Your task to perform on an android device: open app "Flipkart Online Shopping App" (install if not already installed) and enter user name: "fostered@gmail.com" and password: "negotiated" Image 0: 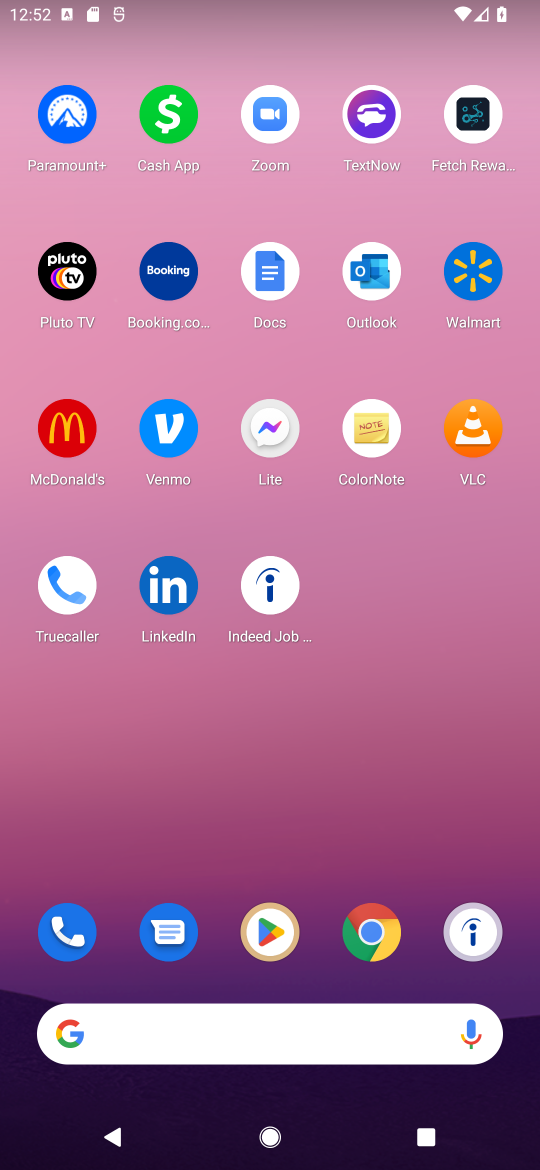
Step 0: click (258, 924)
Your task to perform on an android device: open app "Flipkart Online Shopping App" (install if not already installed) and enter user name: "fostered@gmail.com" and password: "negotiated" Image 1: 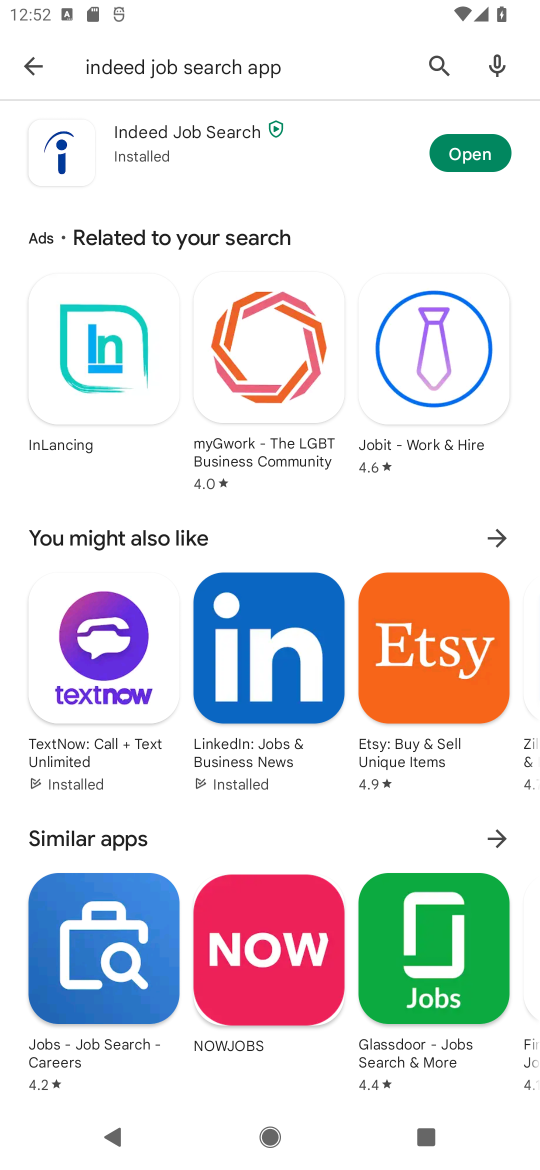
Step 1: click (442, 63)
Your task to perform on an android device: open app "Flipkart Online Shopping App" (install if not already installed) and enter user name: "fostered@gmail.com" and password: "negotiated" Image 2: 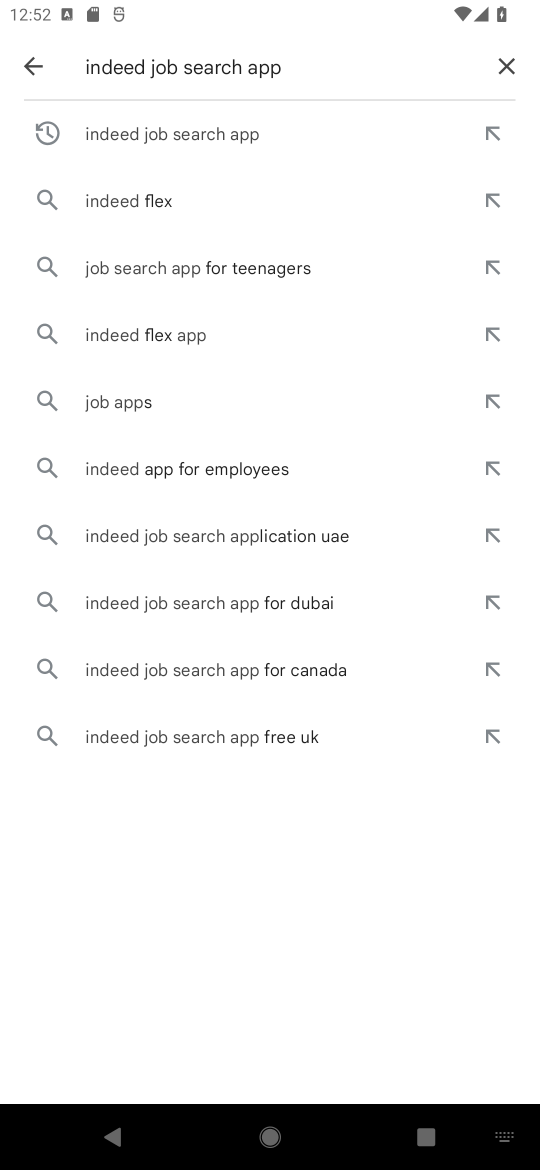
Step 2: click (496, 58)
Your task to perform on an android device: open app "Flipkart Online Shopping App" (install if not already installed) and enter user name: "fostered@gmail.com" and password: "negotiated" Image 3: 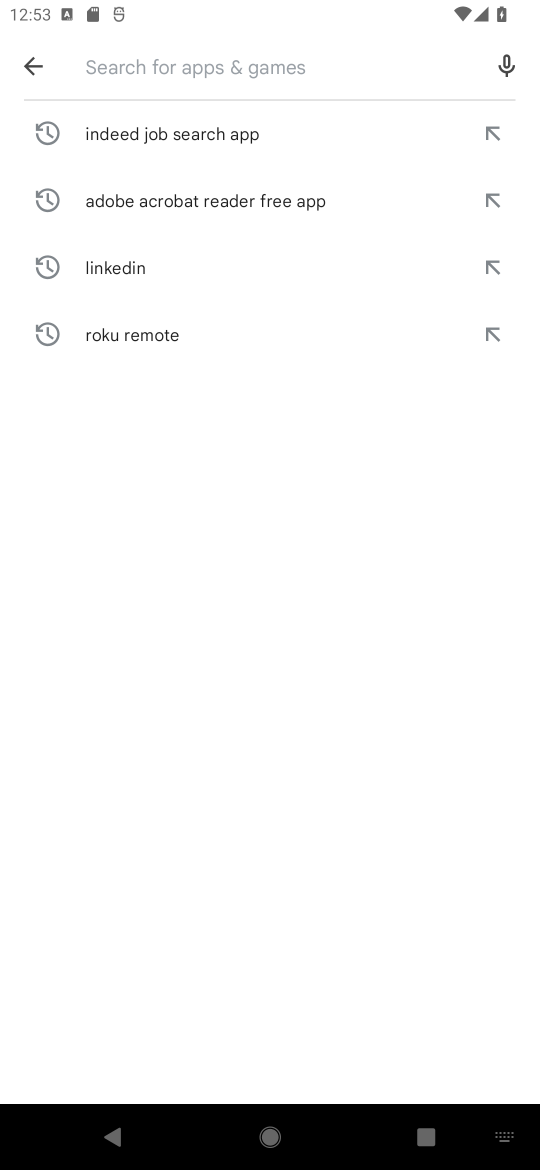
Step 3: click (242, 62)
Your task to perform on an android device: open app "Flipkart Online Shopping App" (install if not already installed) and enter user name: "fostered@gmail.com" and password: "negotiated" Image 4: 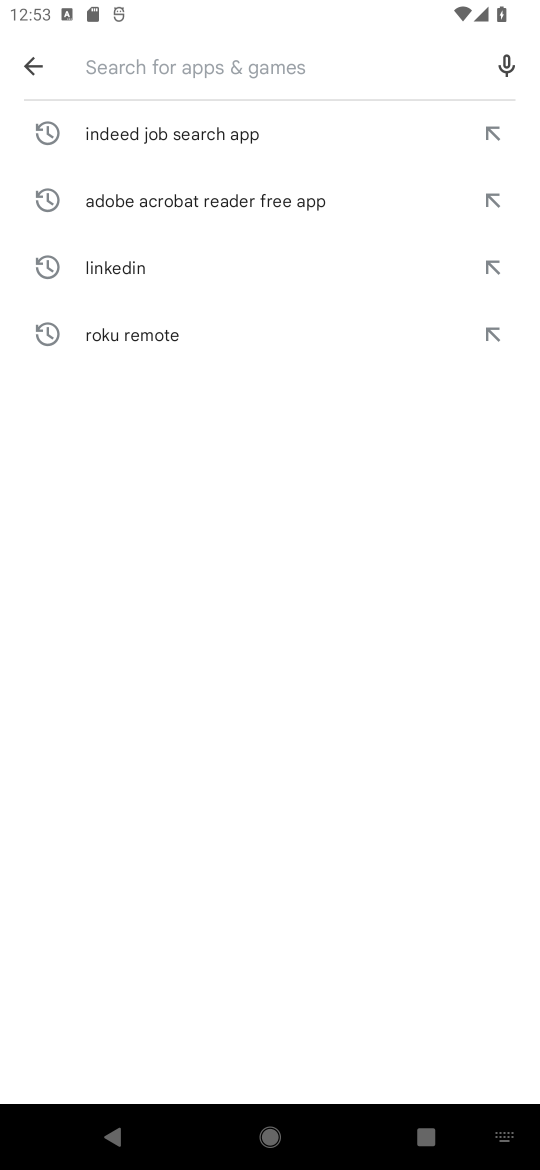
Step 4: type "Flipkart Online Shopping App"
Your task to perform on an android device: open app "Flipkart Online Shopping App" (install if not already installed) and enter user name: "fostered@gmail.com" and password: "negotiated" Image 5: 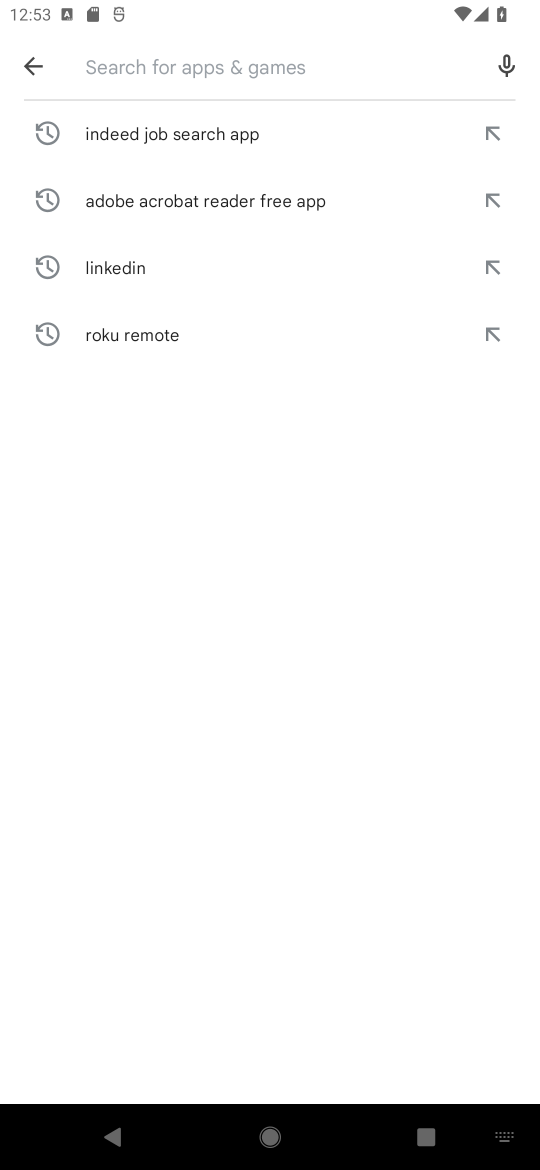
Step 5: click (300, 793)
Your task to perform on an android device: open app "Flipkart Online Shopping App" (install if not already installed) and enter user name: "fostered@gmail.com" and password: "negotiated" Image 6: 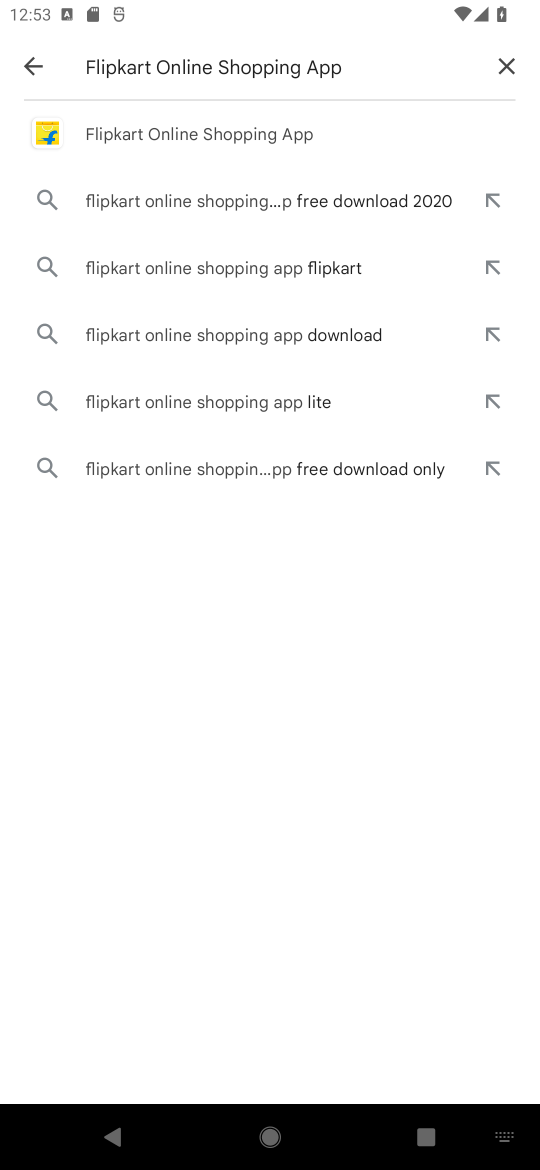
Step 6: click (200, 134)
Your task to perform on an android device: open app "Flipkart Online Shopping App" (install if not already installed) and enter user name: "fostered@gmail.com" and password: "negotiated" Image 7: 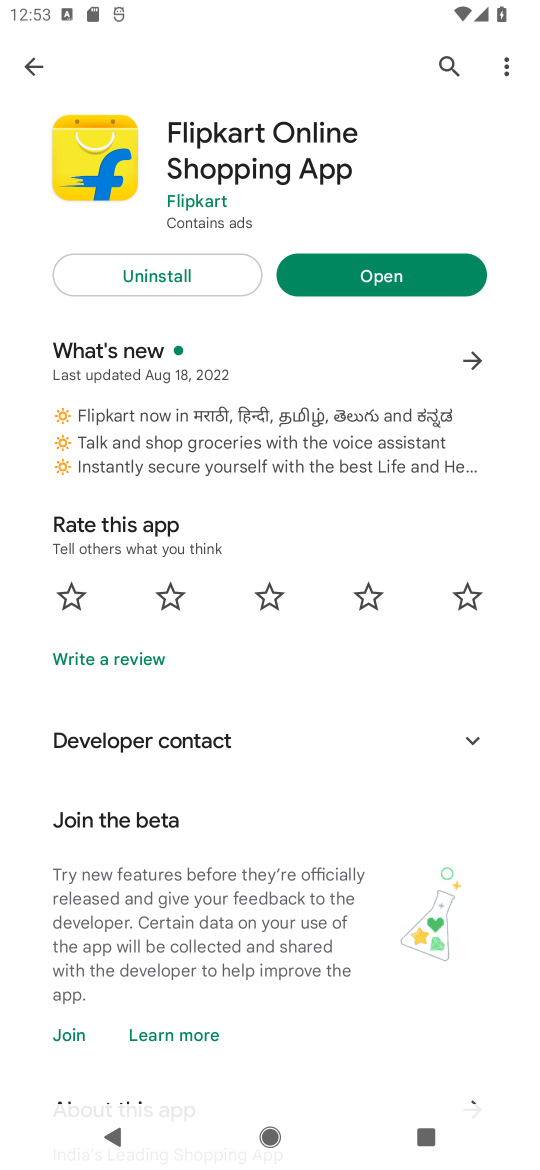
Step 7: click (386, 290)
Your task to perform on an android device: open app "Flipkart Online Shopping App" (install if not already installed) and enter user name: "fostered@gmail.com" and password: "negotiated" Image 8: 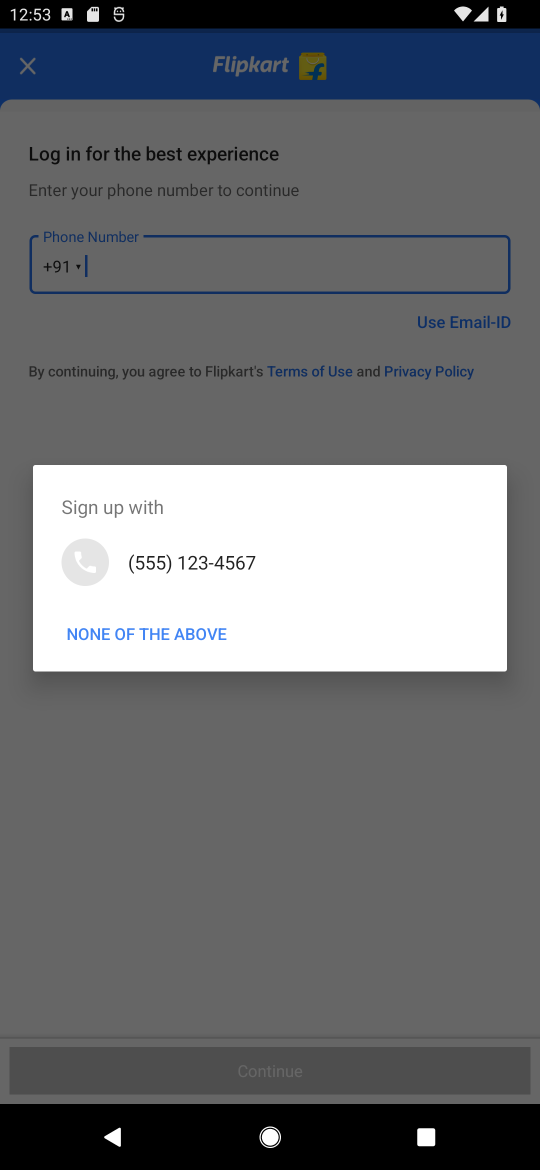
Step 8: click (394, 436)
Your task to perform on an android device: open app "Flipkart Online Shopping App" (install if not already installed) and enter user name: "fostered@gmail.com" and password: "negotiated" Image 9: 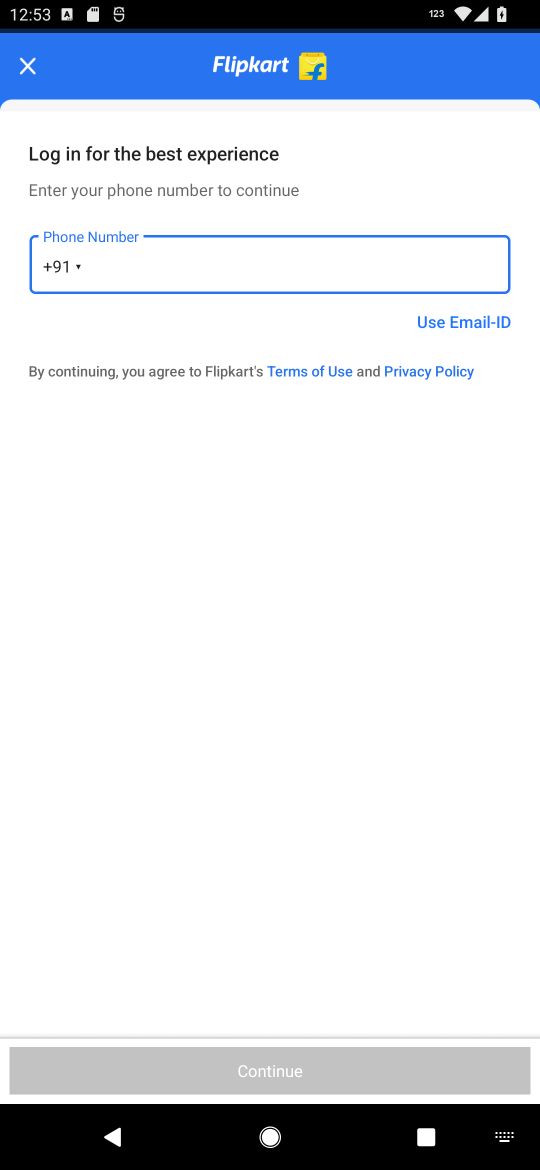
Step 9: click (446, 312)
Your task to perform on an android device: open app "Flipkart Online Shopping App" (install if not already installed) and enter user name: "fostered@gmail.com" and password: "negotiated" Image 10: 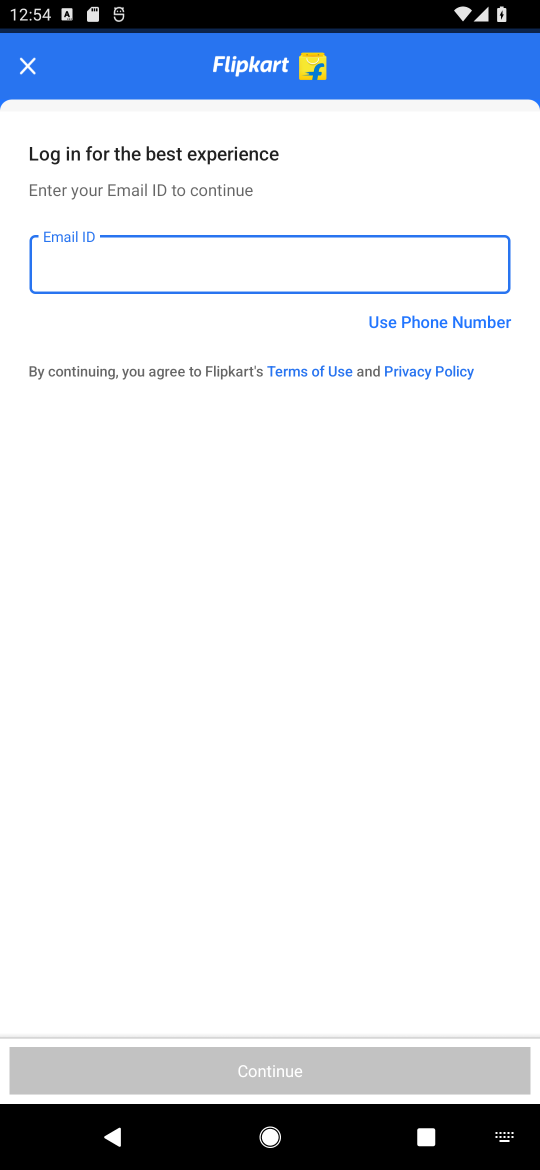
Step 10: click (254, 285)
Your task to perform on an android device: open app "Flipkart Online Shopping App" (install if not already installed) and enter user name: "fostered@gmail.com" and password: "negotiated" Image 11: 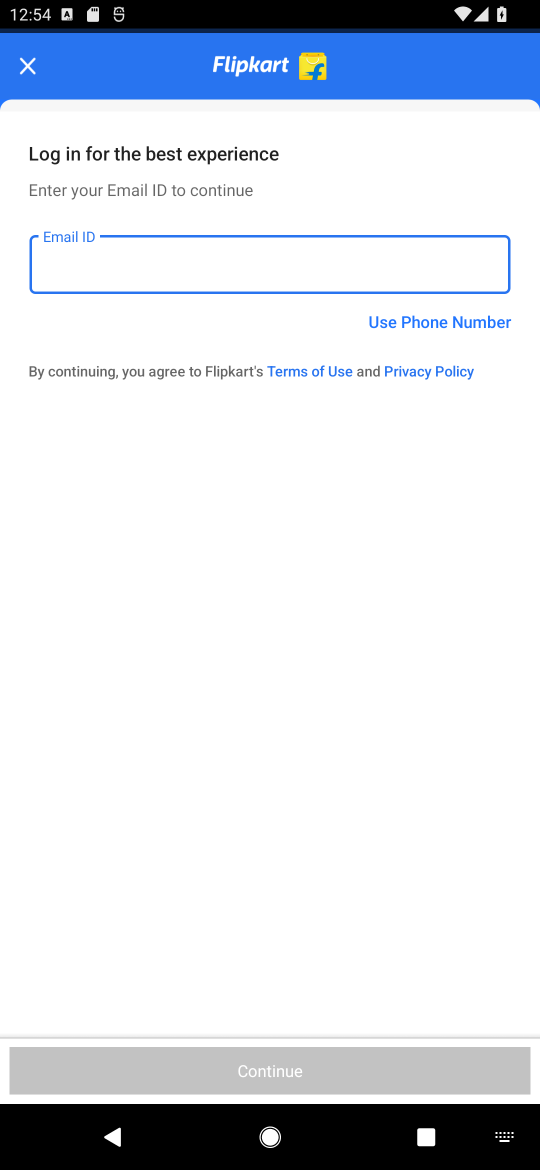
Step 11: type "fostered@gmail.com"
Your task to perform on an android device: open app "Flipkart Online Shopping App" (install if not already installed) and enter user name: "fostered@gmail.com" and password: "negotiated" Image 12: 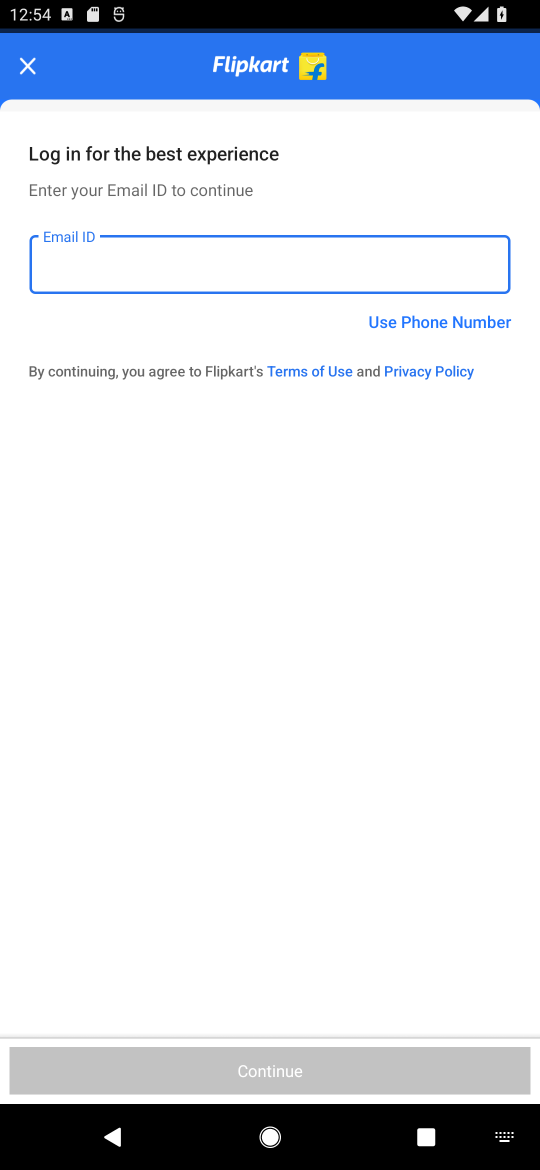
Step 12: click (334, 687)
Your task to perform on an android device: open app "Flipkart Online Shopping App" (install if not already installed) and enter user name: "fostered@gmail.com" and password: "negotiated" Image 13: 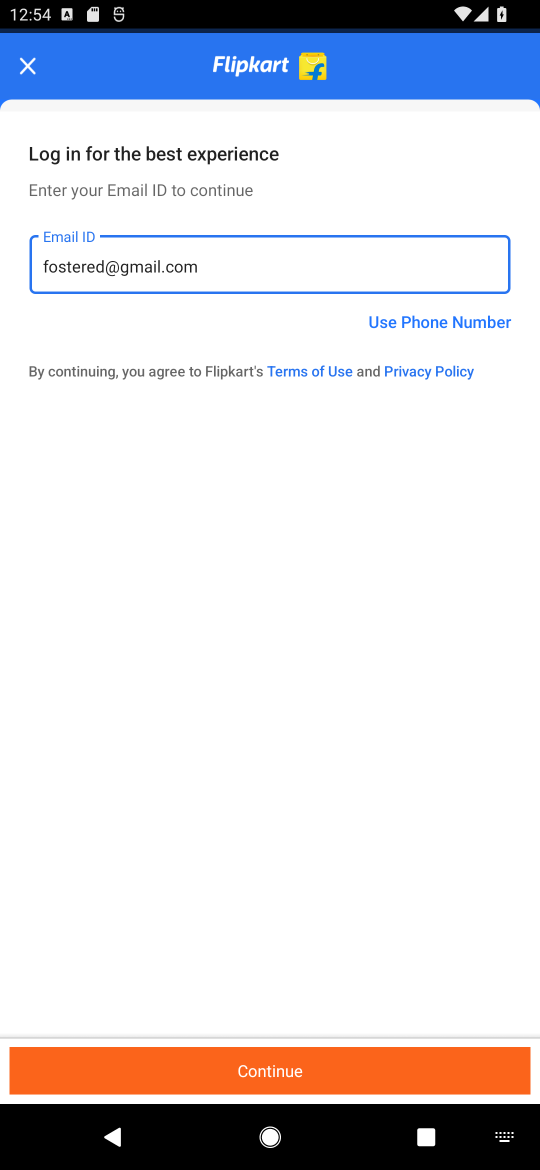
Step 13: click (277, 1063)
Your task to perform on an android device: open app "Flipkart Online Shopping App" (install if not already installed) and enter user name: "fostered@gmail.com" and password: "negotiated" Image 14: 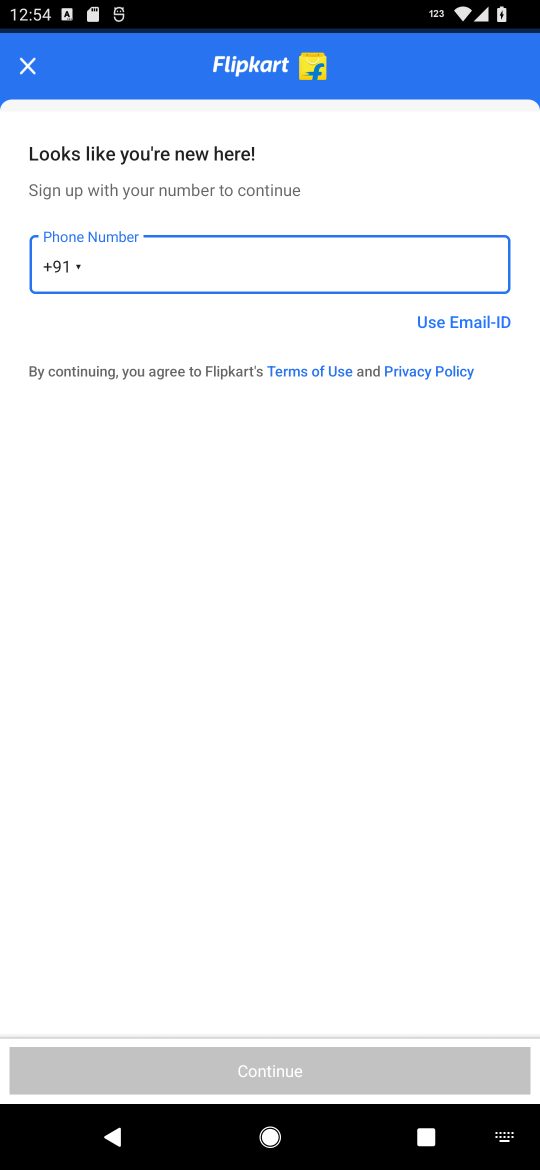
Step 14: task complete